Your task to perform on an android device: Go to Amazon Image 0: 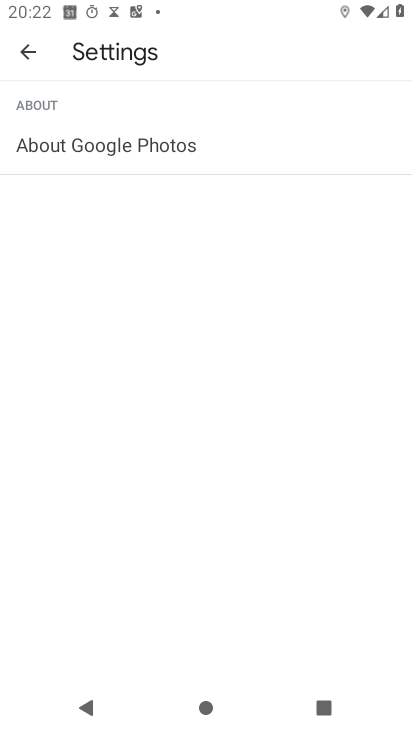
Step 0: press home button
Your task to perform on an android device: Go to Amazon Image 1: 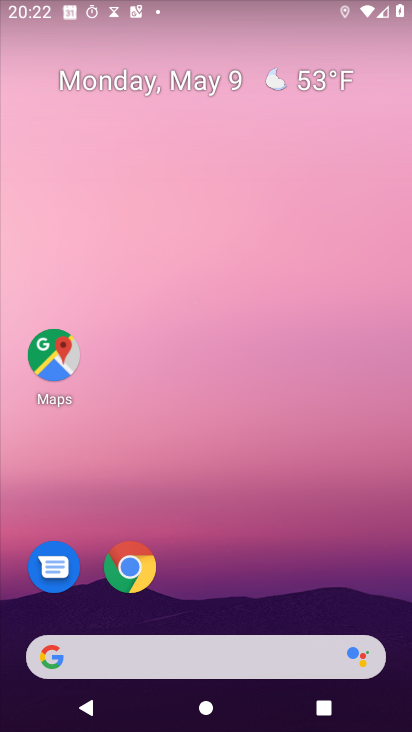
Step 1: click (127, 575)
Your task to perform on an android device: Go to Amazon Image 2: 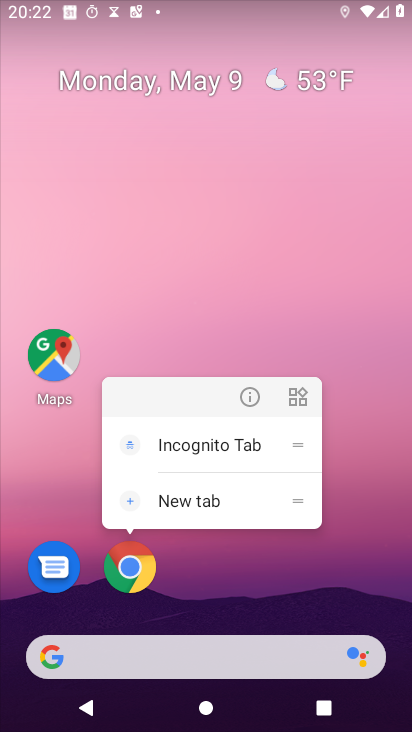
Step 2: click (127, 575)
Your task to perform on an android device: Go to Amazon Image 3: 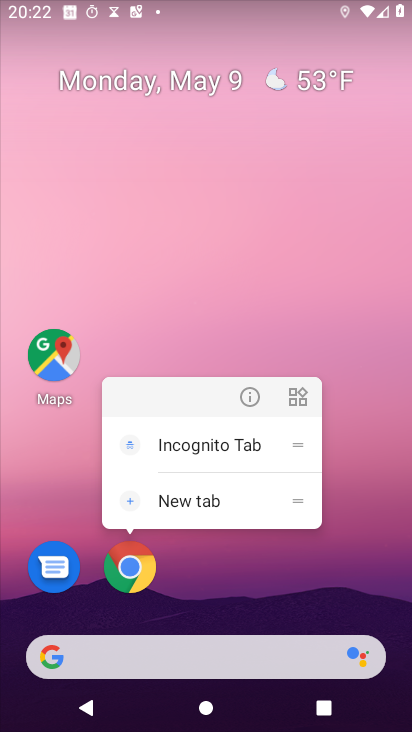
Step 3: click (127, 575)
Your task to perform on an android device: Go to Amazon Image 4: 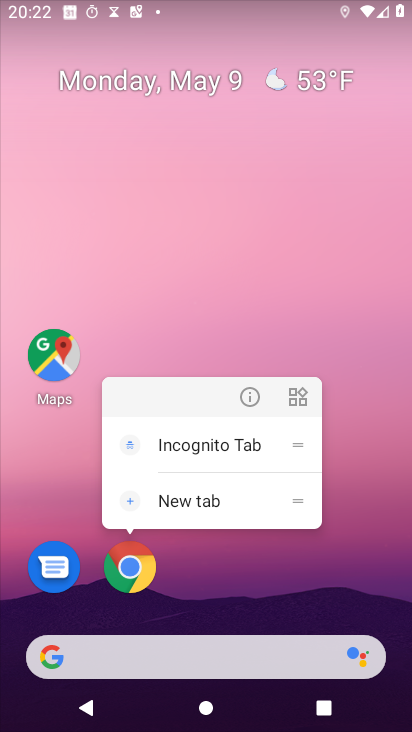
Step 4: click (127, 566)
Your task to perform on an android device: Go to Amazon Image 5: 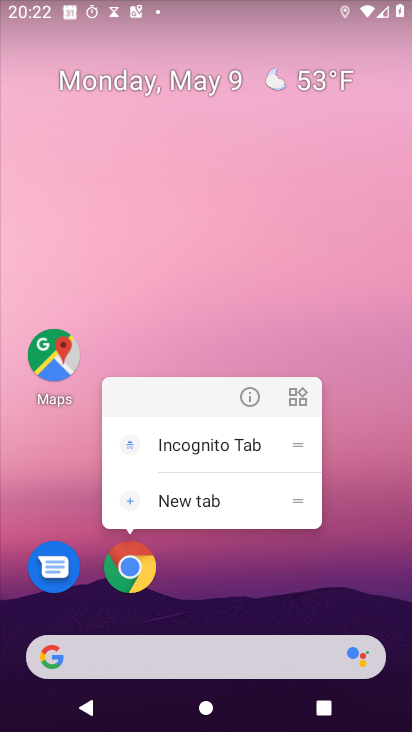
Step 5: click (128, 569)
Your task to perform on an android device: Go to Amazon Image 6: 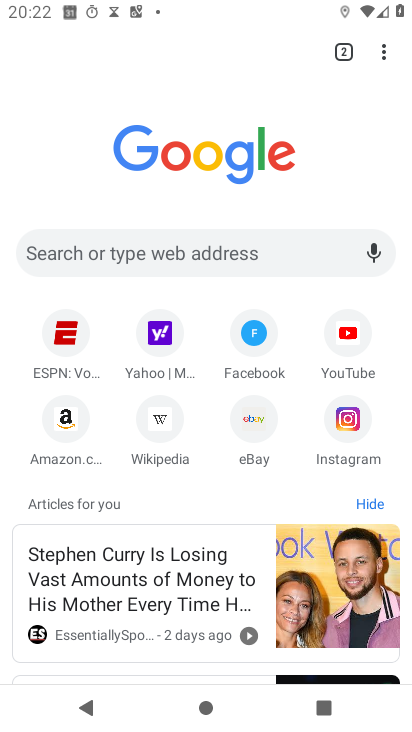
Step 6: click (61, 433)
Your task to perform on an android device: Go to Amazon Image 7: 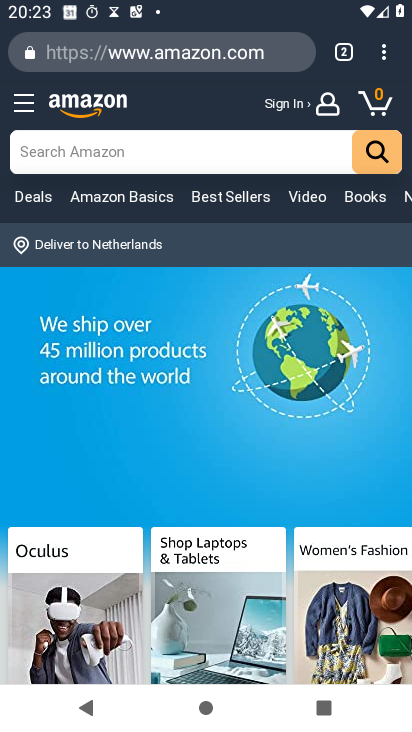
Step 7: task complete